Your task to perform on an android device: Play the last video I watched on Youtube Image 0: 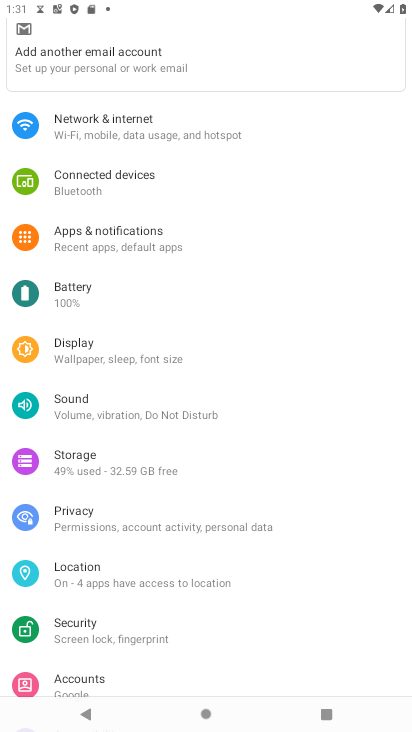
Step 0: press home button
Your task to perform on an android device: Play the last video I watched on Youtube Image 1: 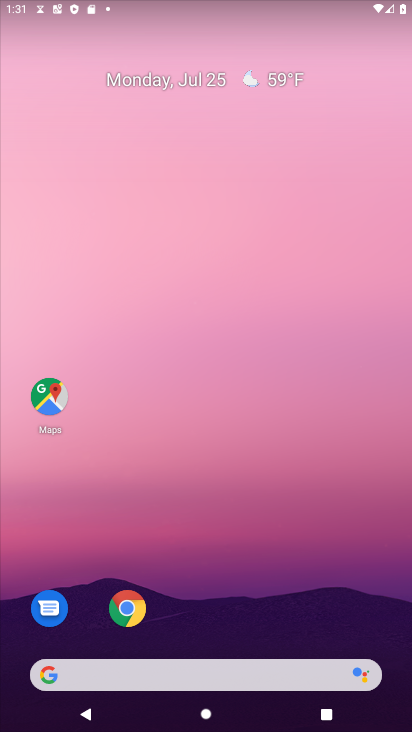
Step 1: drag from (247, 641) to (261, 274)
Your task to perform on an android device: Play the last video I watched on Youtube Image 2: 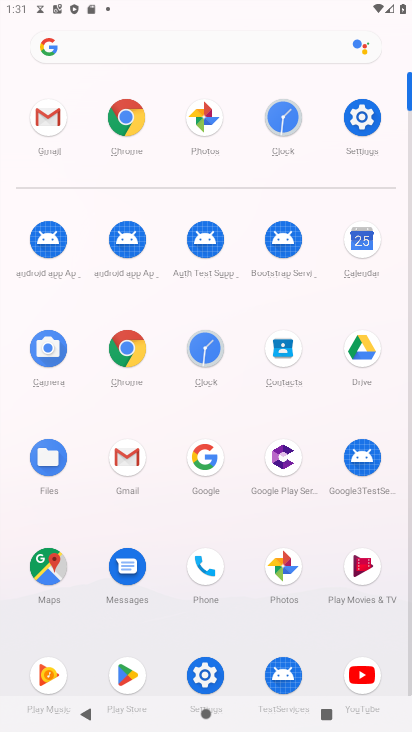
Step 2: click (379, 678)
Your task to perform on an android device: Play the last video I watched on Youtube Image 3: 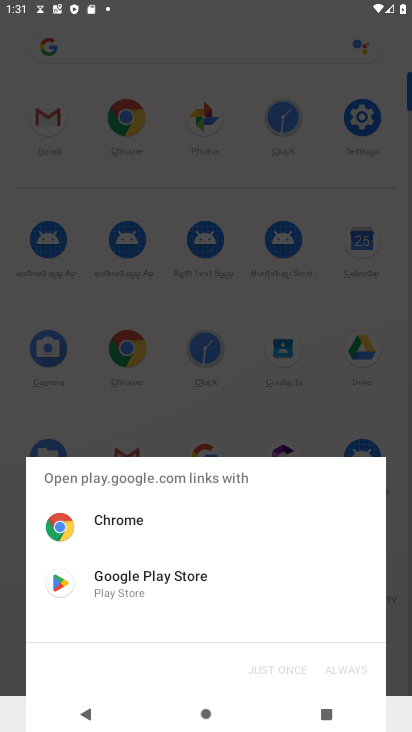
Step 3: click (385, 679)
Your task to perform on an android device: Play the last video I watched on Youtube Image 4: 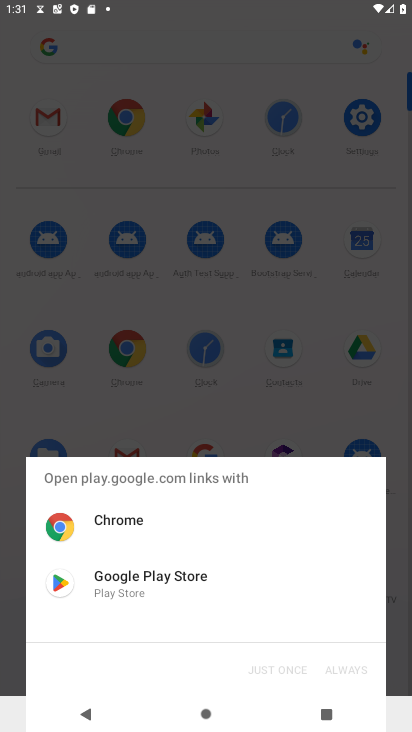
Step 4: click (106, 593)
Your task to perform on an android device: Play the last video I watched on Youtube Image 5: 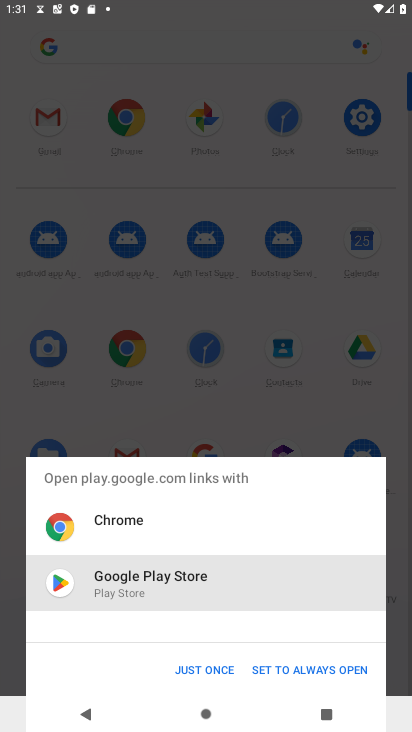
Step 5: click (188, 676)
Your task to perform on an android device: Play the last video I watched on Youtube Image 6: 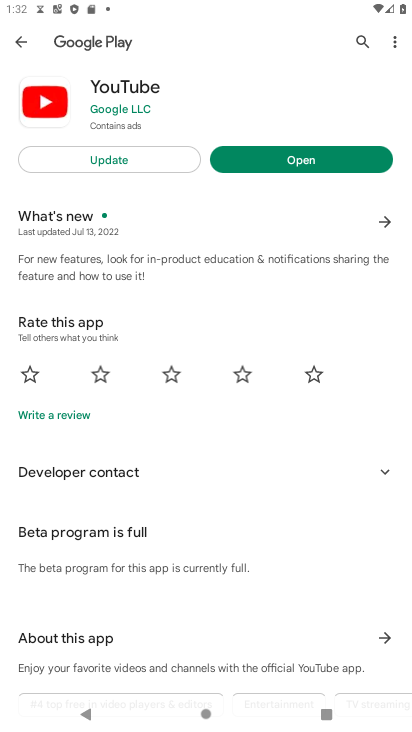
Step 6: click (93, 158)
Your task to perform on an android device: Play the last video I watched on Youtube Image 7: 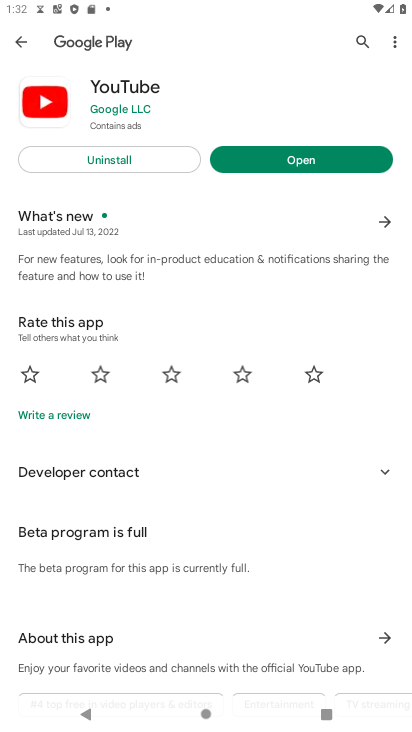
Step 7: click (351, 160)
Your task to perform on an android device: Play the last video I watched on Youtube Image 8: 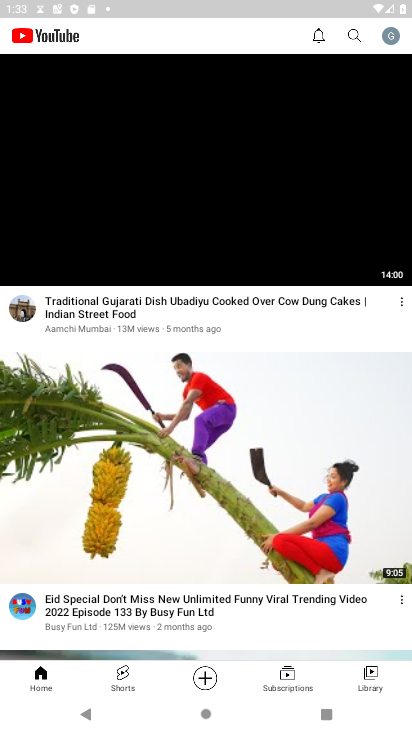
Step 8: click (360, 684)
Your task to perform on an android device: Play the last video I watched on Youtube Image 9: 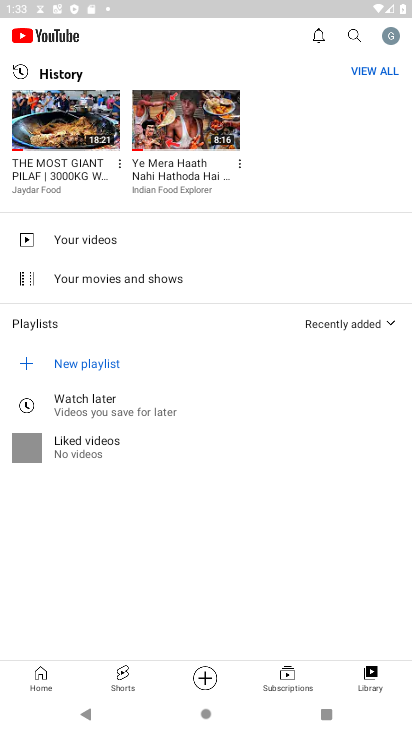
Step 9: click (53, 143)
Your task to perform on an android device: Play the last video I watched on Youtube Image 10: 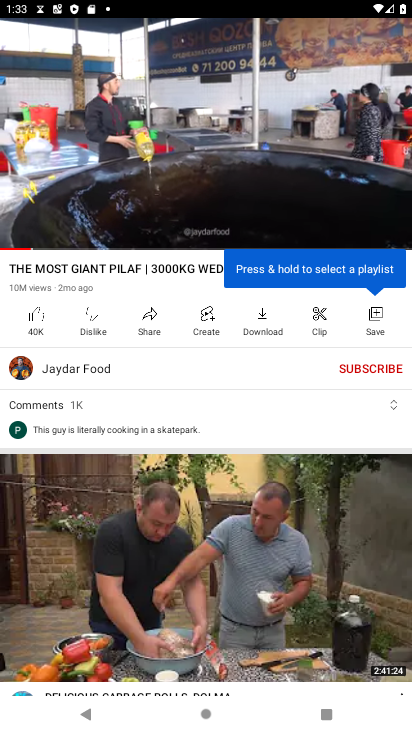
Step 10: task complete